Your task to perform on an android device: Open the phone app and click the voicemail tab. Image 0: 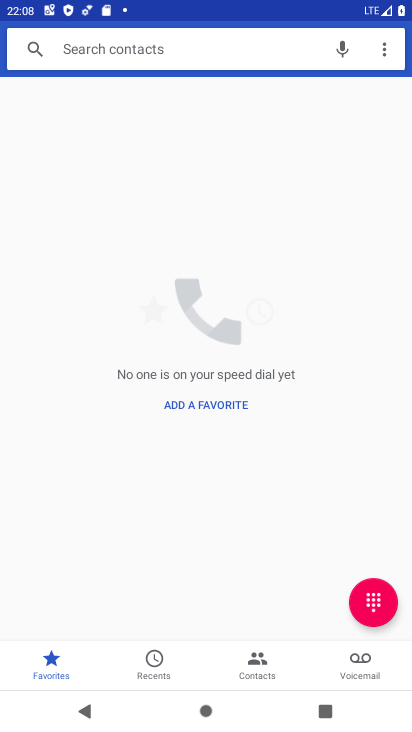
Step 0: press back button
Your task to perform on an android device: Open the phone app and click the voicemail tab. Image 1: 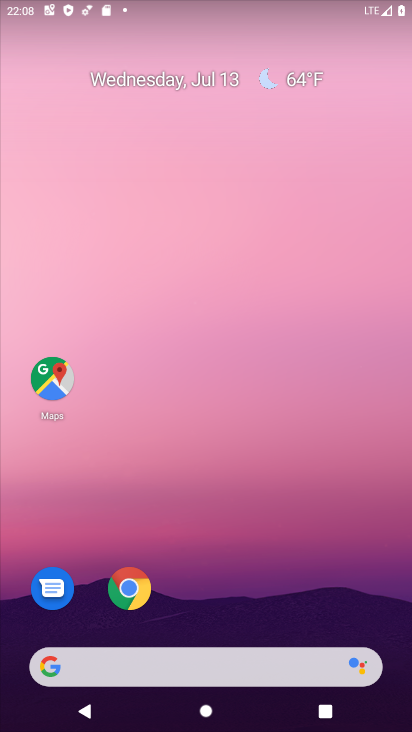
Step 1: drag from (274, 562) to (291, 26)
Your task to perform on an android device: Open the phone app and click the voicemail tab. Image 2: 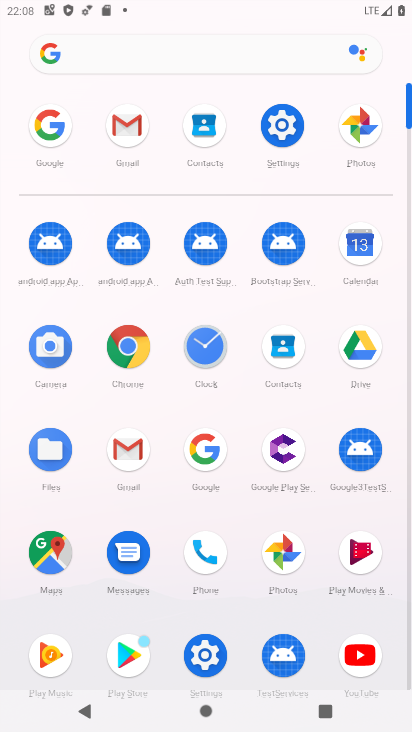
Step 2: click (200, 547)
Your task to perform on an android device: Open the phone app and click the voicemail tab. Image 3: 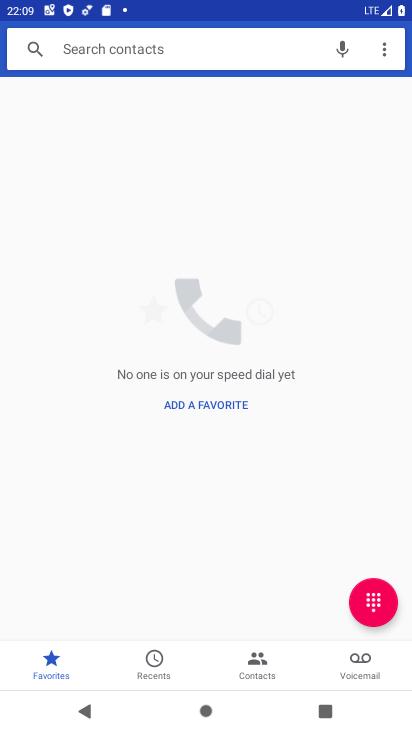
Step 3: click (358, 656)
Your task to perform on an android device: Open the phone app and click the voicemail tab. Image 4: 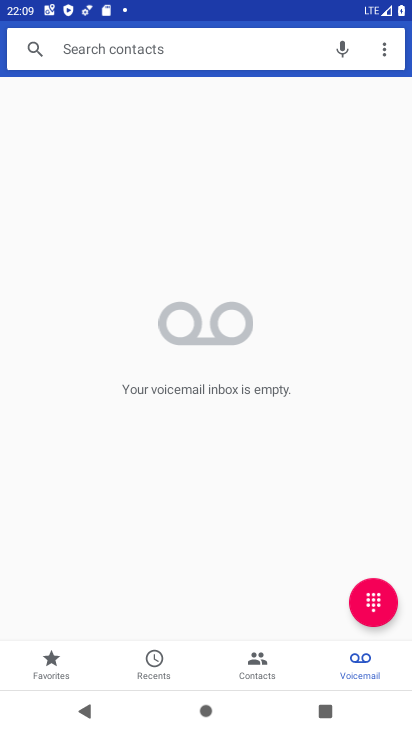
Step 4: task complete